Your task to perform on an android device: open app "Google Translate" Image 0: 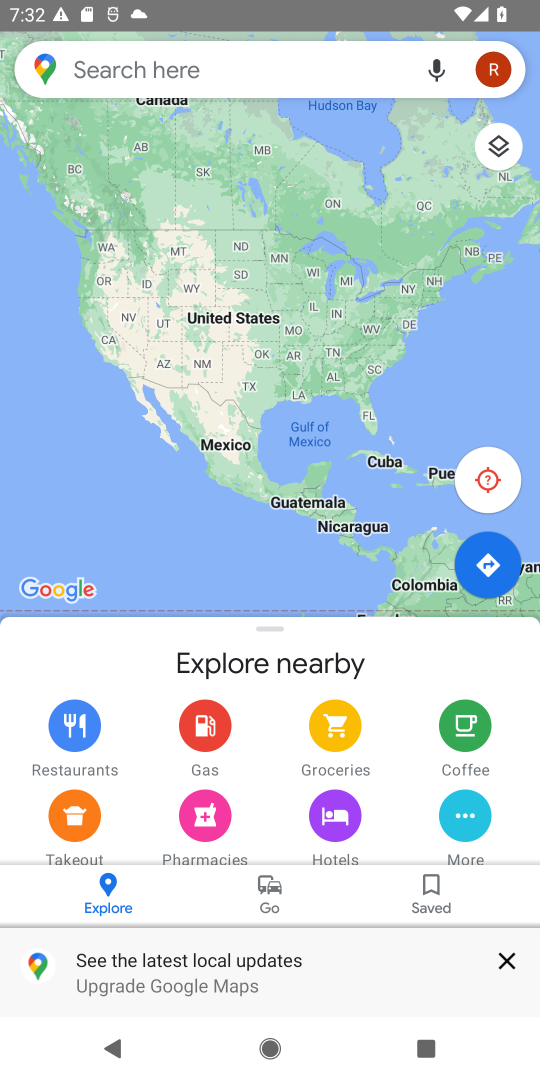
Step 0: press home button
Your task to perform on an android device: open app "Google Translate" Image 1: 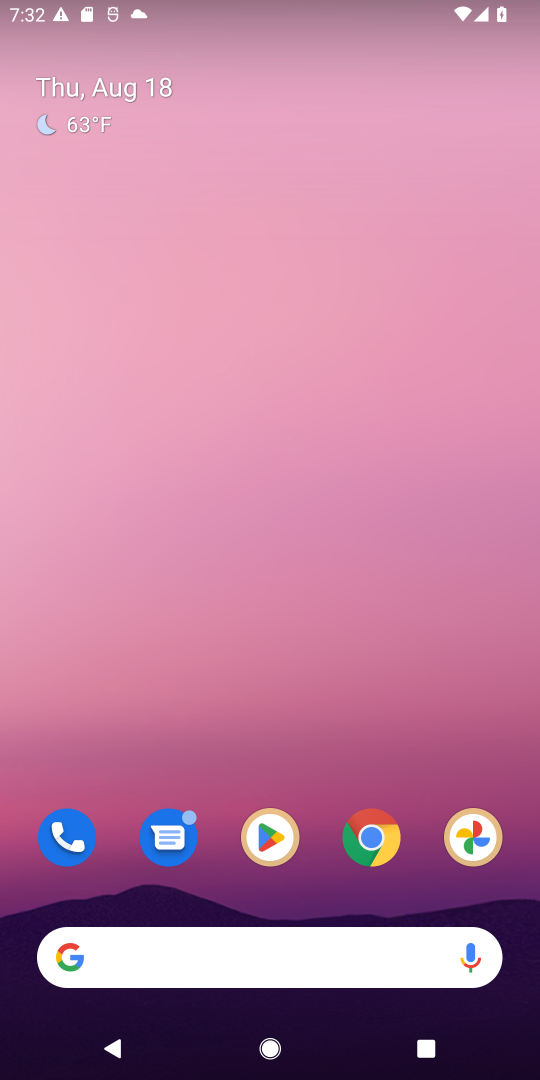
Step 1: click (270, 843)
Your task to perform on an android device: open app "Google Translate" Image 2: 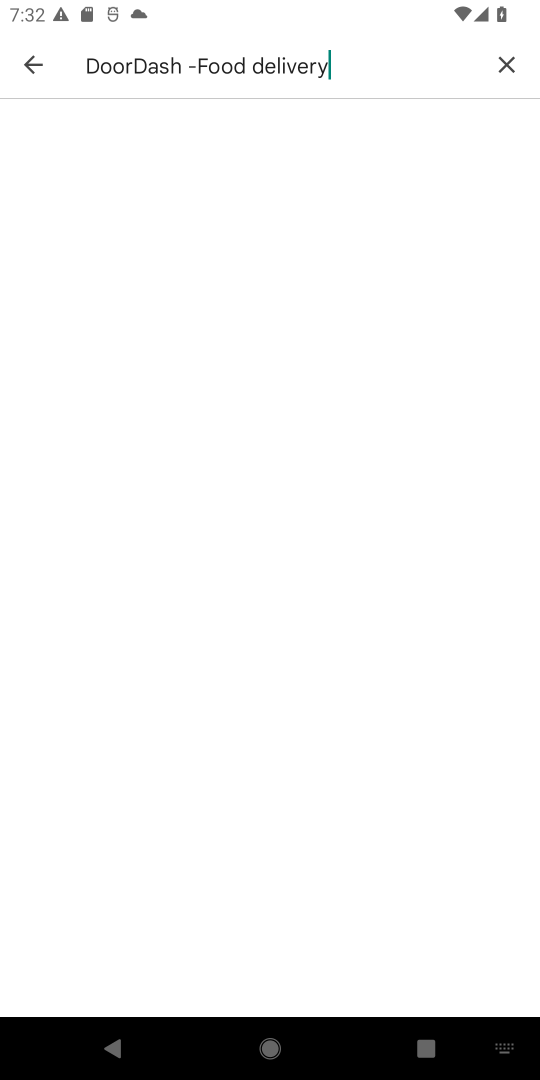
Step 2: click (516, 56)
Your task to perform on an android device: open app "Google Translate" Image 3: 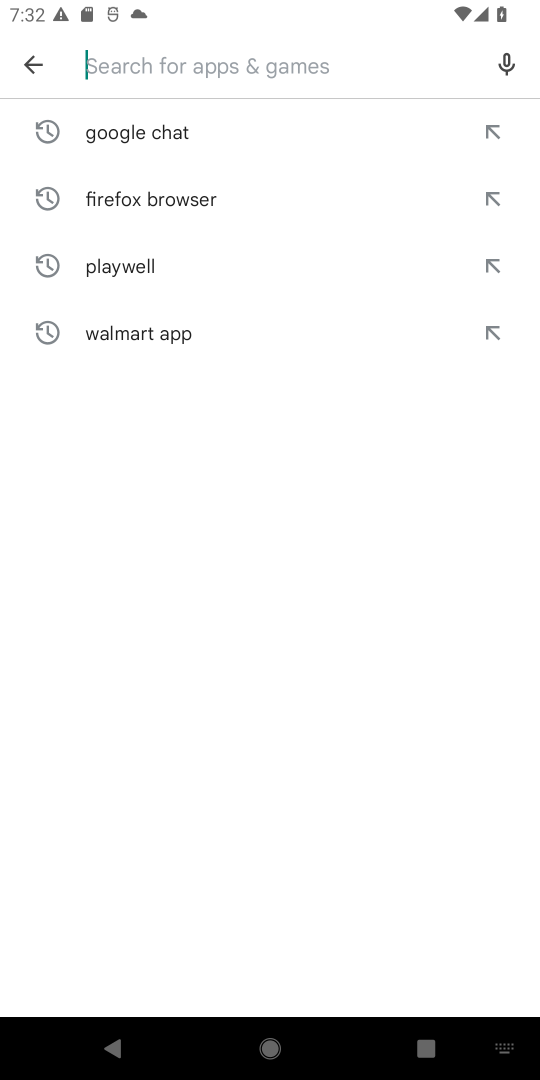
Step 3: type "google translate"
Your task to perform on an android device: open app "Google Translate" Image 4: 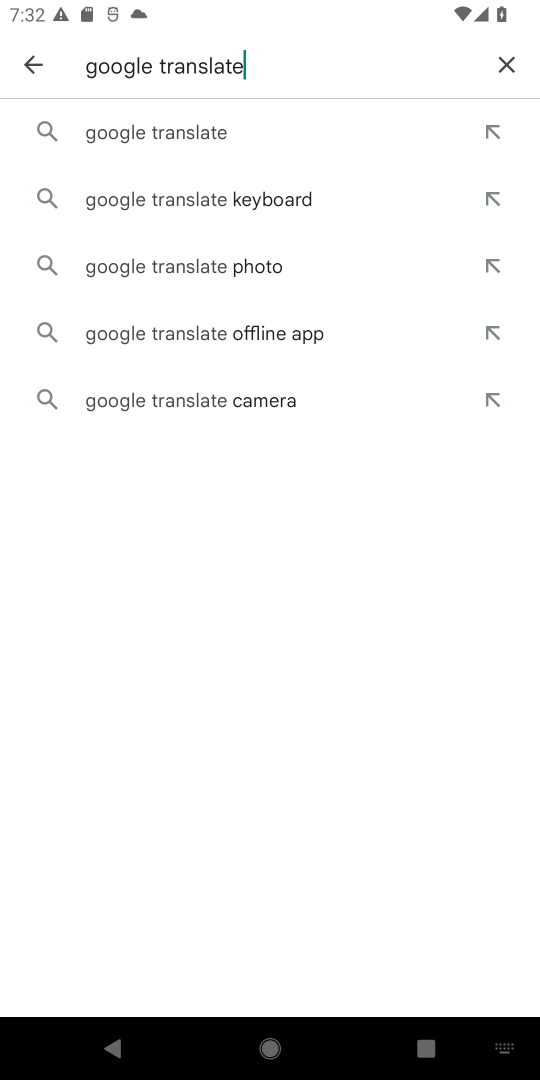
Step 4: click (163, 134)
Your task to perform on an android device: open app "Google Translate" Image 5: 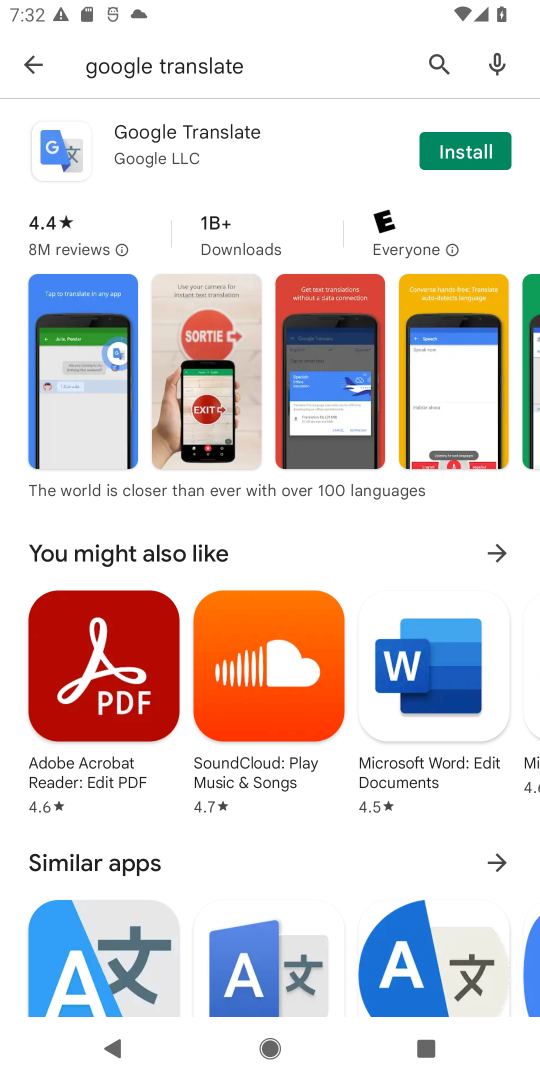
Step 5: click (454, 141)
Your task to perform on an android device: open app "Google Translate" Image 6: 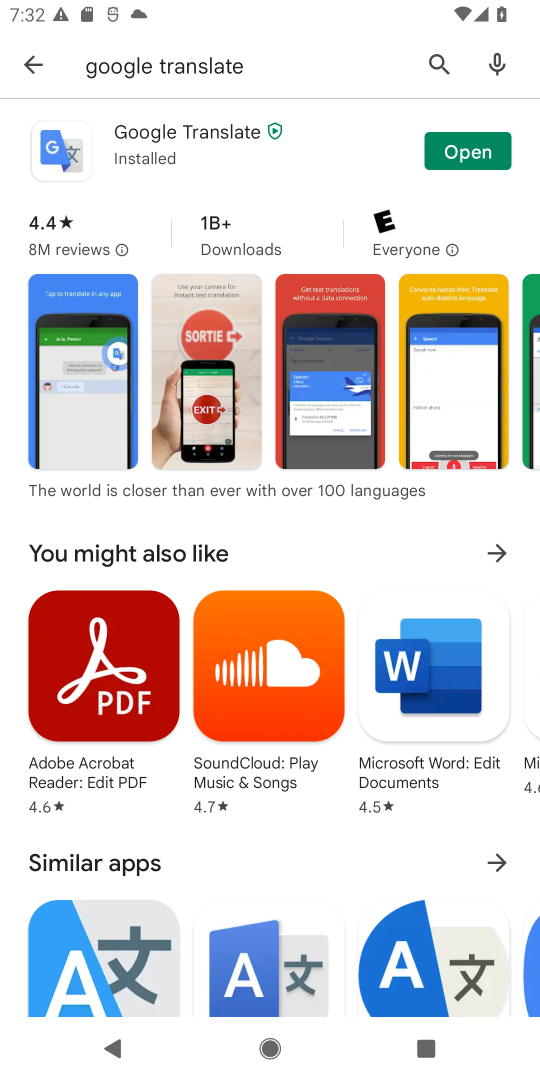
Step 6: click (475, 154)
Your task to perform on an android device: open app "Google Translate" Image 7: 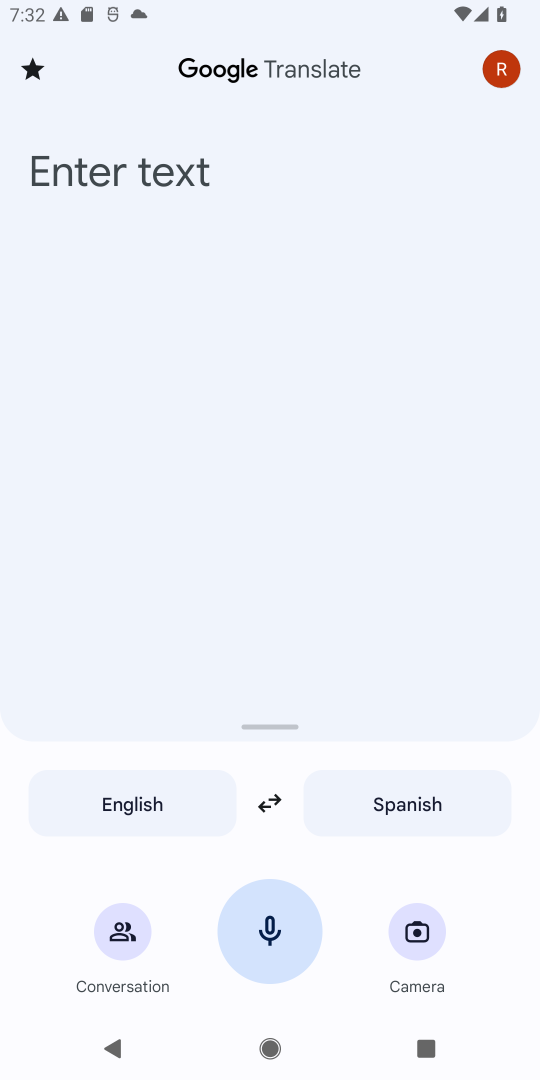
Step 7: task complete